Your task to perform on an android device: Go to battery settings Image 0: 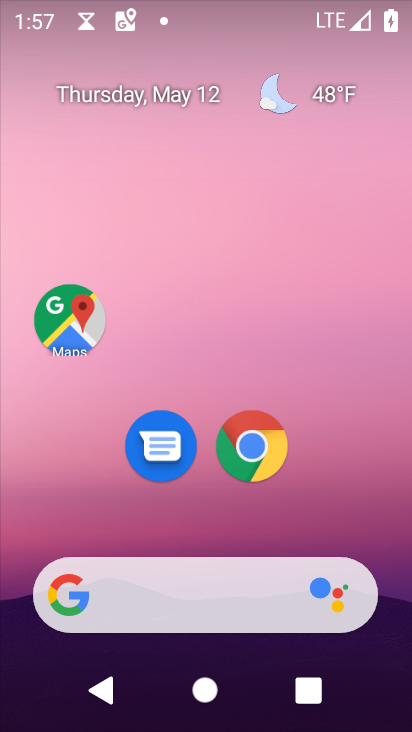
Step 0: drag from (296, 476) to (295, 99)
Your task to perform on an android device: Go to battery settings Image 1: 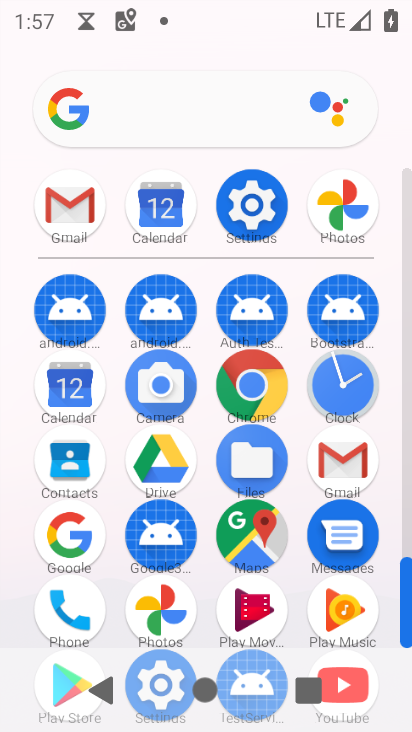
Step 1: click (256, 196)
Your task to perform on an android device: Go to battery settings Image 2: 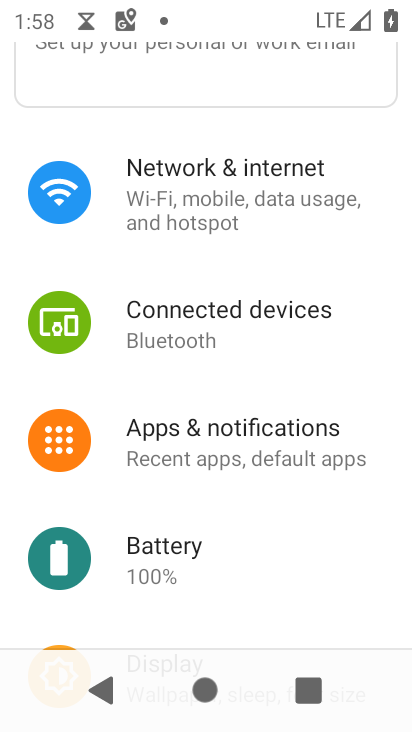
Step 2: click (138, 560)
Your task to perform on an android device: Go to battery settings Image 3: 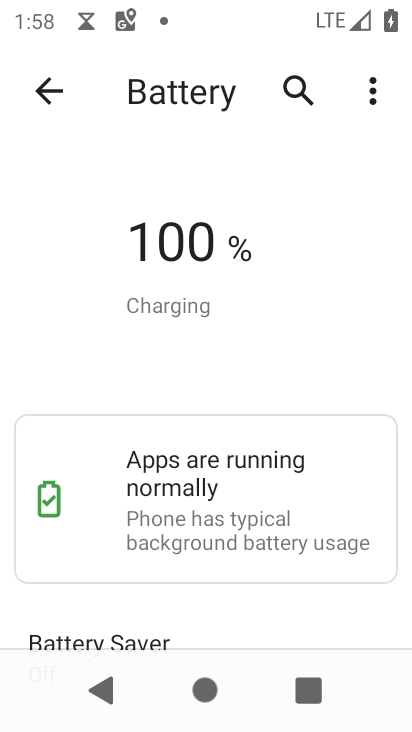
Step 3: task complete